Your task to perform on an android device: Go to ESPN.com Image 0: 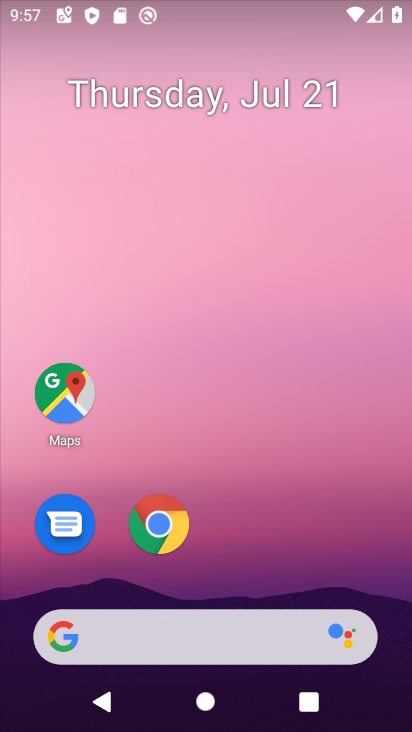
Step 0: click (166, 514)
Your task to perform on an android device: Go to ESPN.com Image 1: 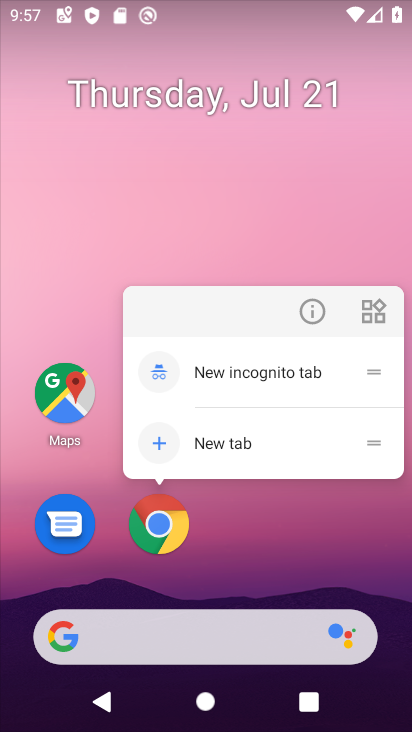
Step 1: click (161, 517)
Your task to perform on an android device: Go to ESPN.com Image 2: 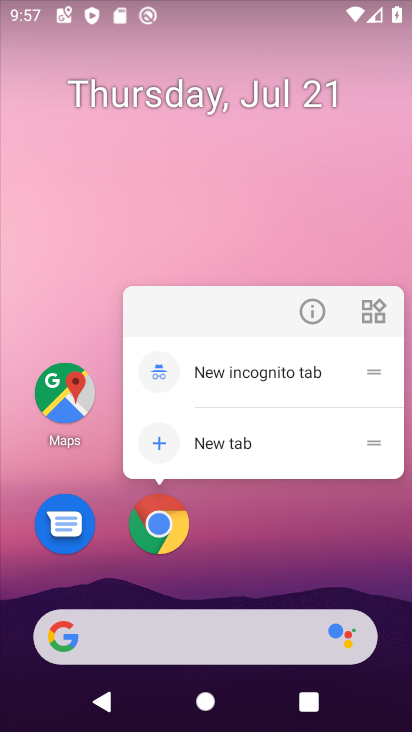
Step 2: click (150, 527)
Your task to perform on an android device: Go to ESPN.com Image 3: 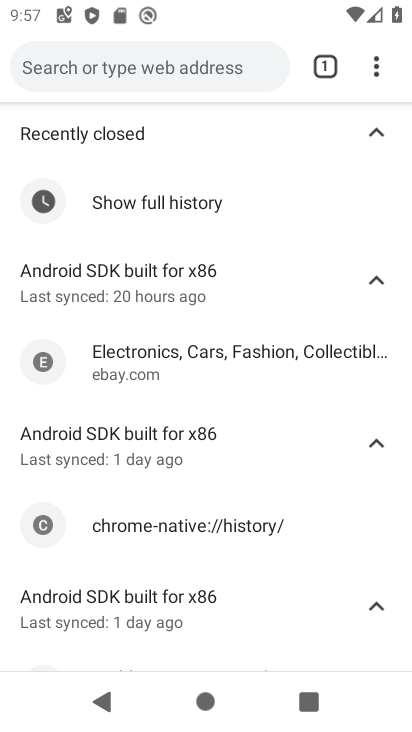
Step 3: drag from (377, 67) to (152, 132)
Your task to perform on an android device: Go to ESPN.com Image 4: 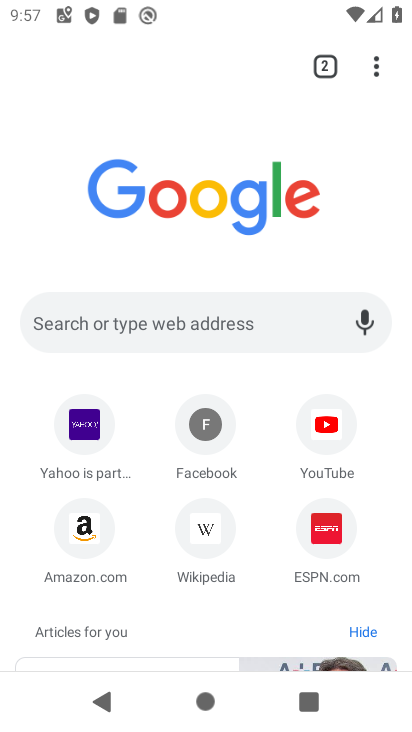
Step 4: drag from (200, 365) to (175, 549)
Your task to perform on an android device: Go to ESPN.com Image 5: 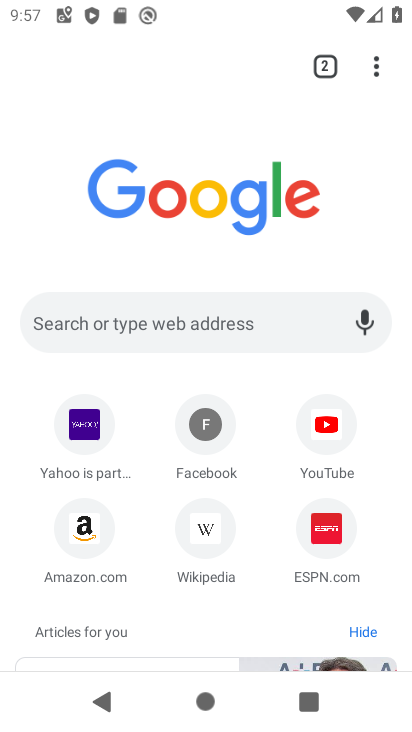
Step 5: click (326, 522)
Your task to perform on an android device: Go to ESPN.com Image 6: 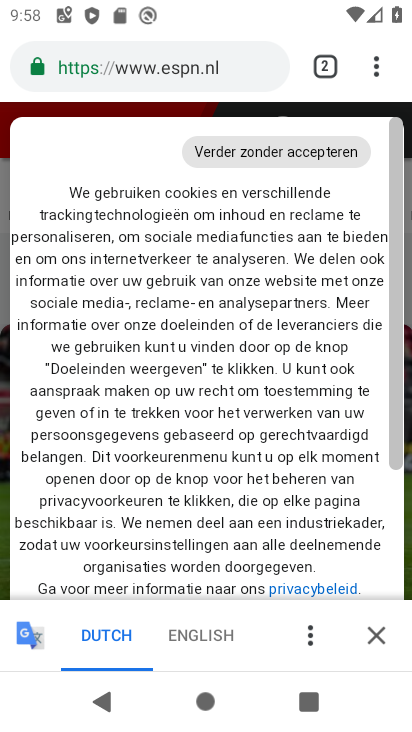
Step 6: click (192, 634)
Your task to perform on an android device: Go to ESPN.com Image 7: 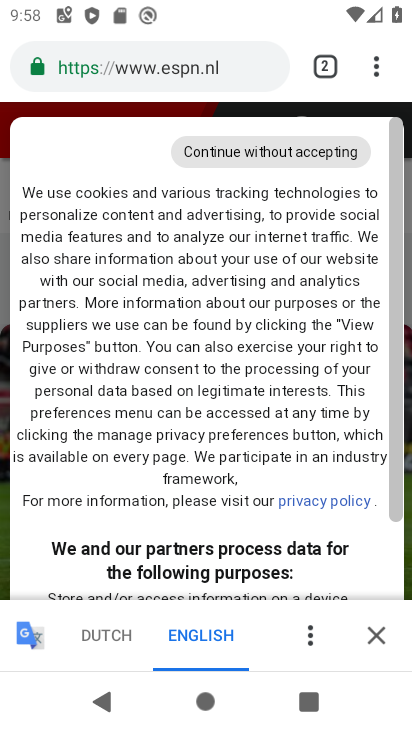
Step 7: drag from (198, 494) to (231, 230)
Your task to perform on an android device: Go to ESPN.com Image 8: 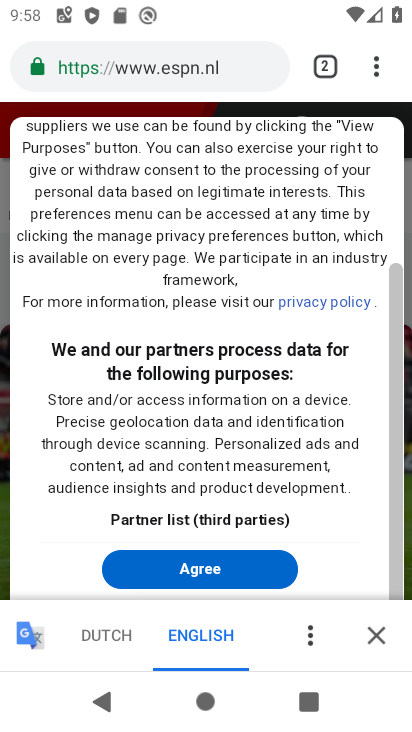
Step 8: click (199, 566)
Your task to perform on an android device: Go to ESPN.com Image 9: 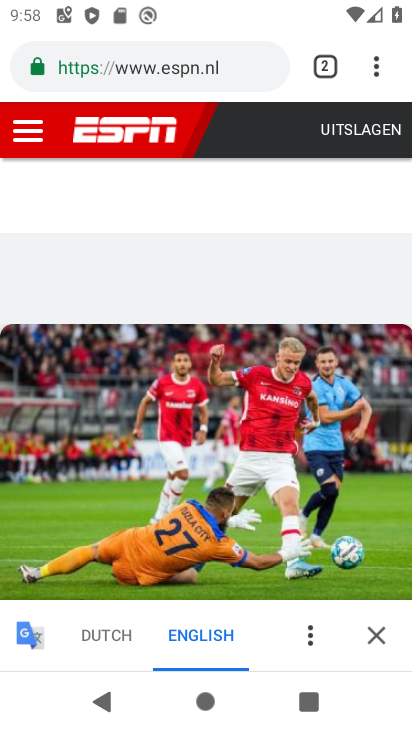
Step 9: task complete